Your task to perform on an android device: set default search engine in the chrome app Image 0: 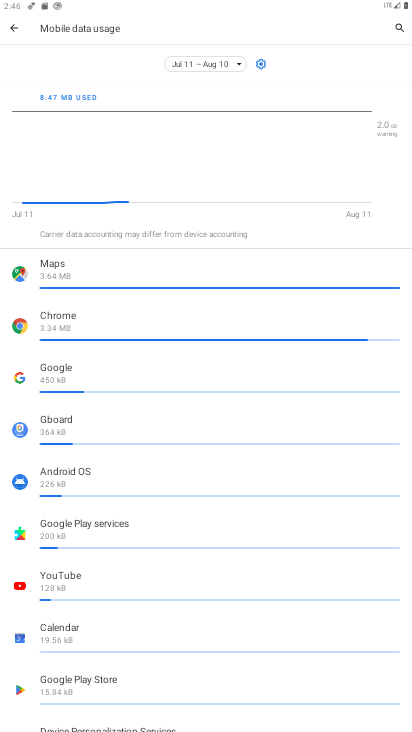
Step 0: press home button
Your task to perform on an android device: set default search engine in the chrome app Image 1: 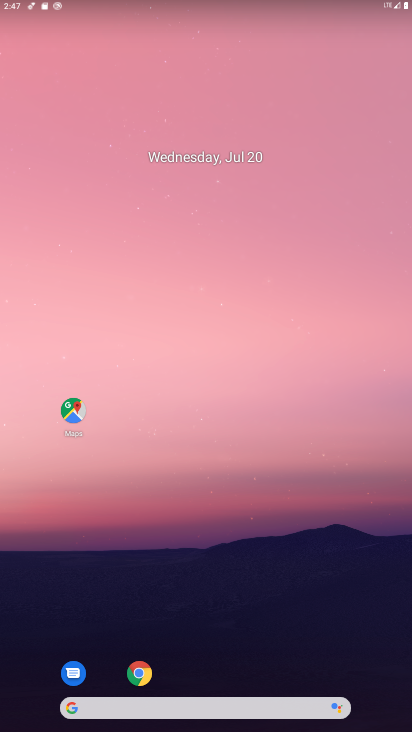
Step 1: click (133, 676)
Your task to perform on an android device: set default search engine in the chrome app Image 2: 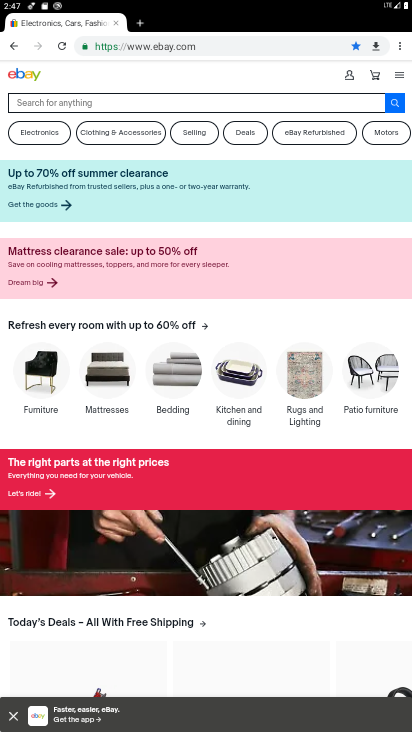
Step 2: click (398, 44)
Your task to perform on an android device: set default search engine in the chrome app Image 3: 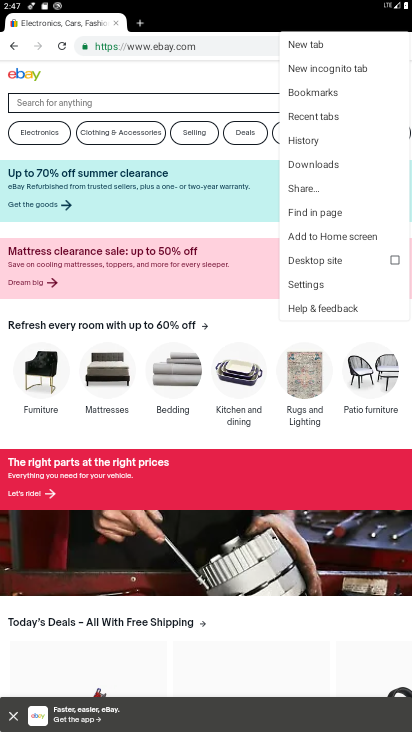
Step 3: click (305, 281)
Your task to perform on an android device: set default search engine in the chrome app Image 4: 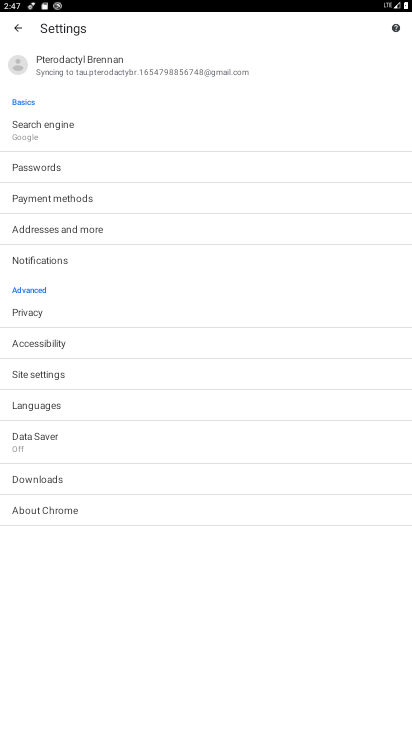
Step 4: click (43, 131)
Your task to perform on an android device: set default search engine in the chrome app Image 5: 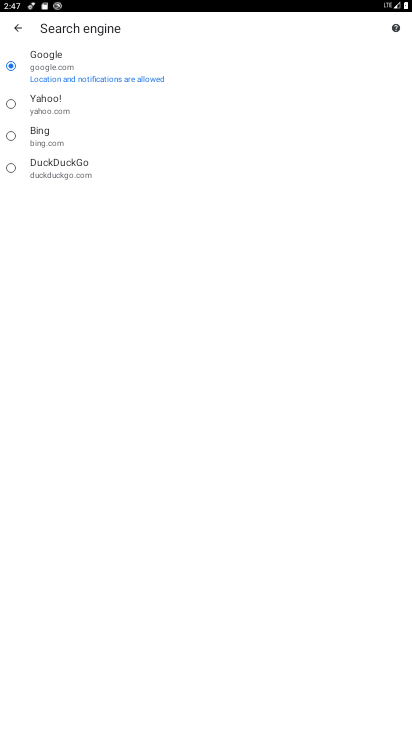
Step 5: task complete